Your task to perform on an android device: toggle priority inbox in the gmail app Image 0: 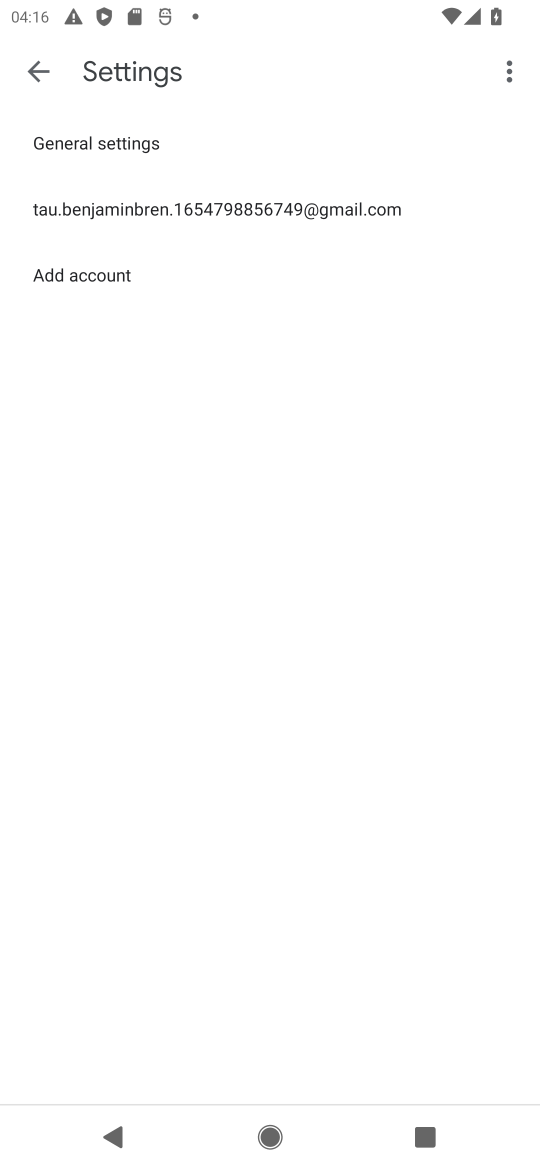
Step 0: press home button
Your task to perform on an android device: toggle priority inbox in the gmail app Image 1: 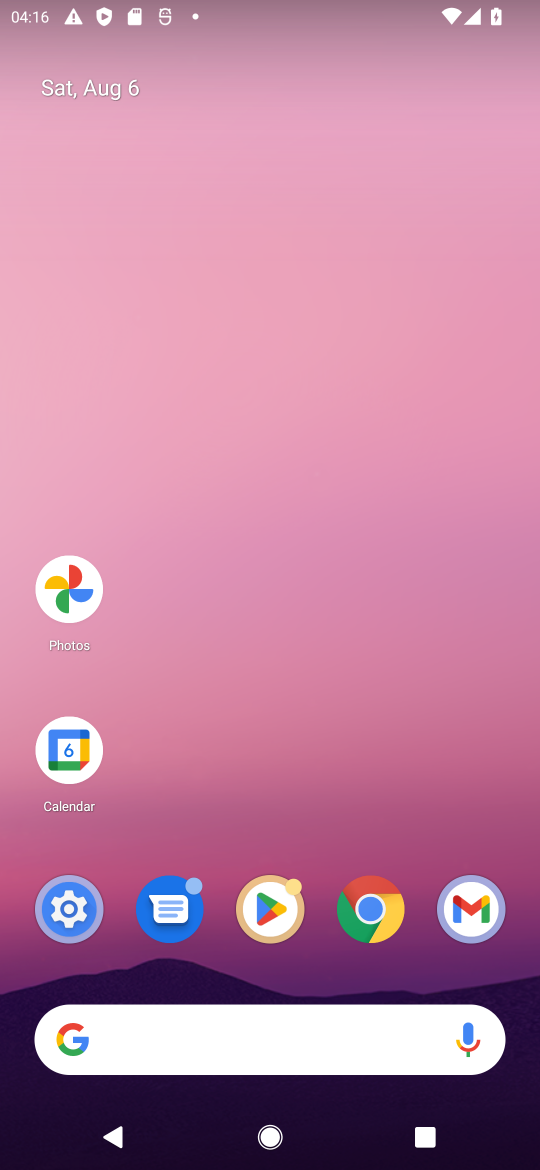
Step 1: click (461, 907)
Your task to perform on an android device: toggle priority inbox in the gmail app Image 2: 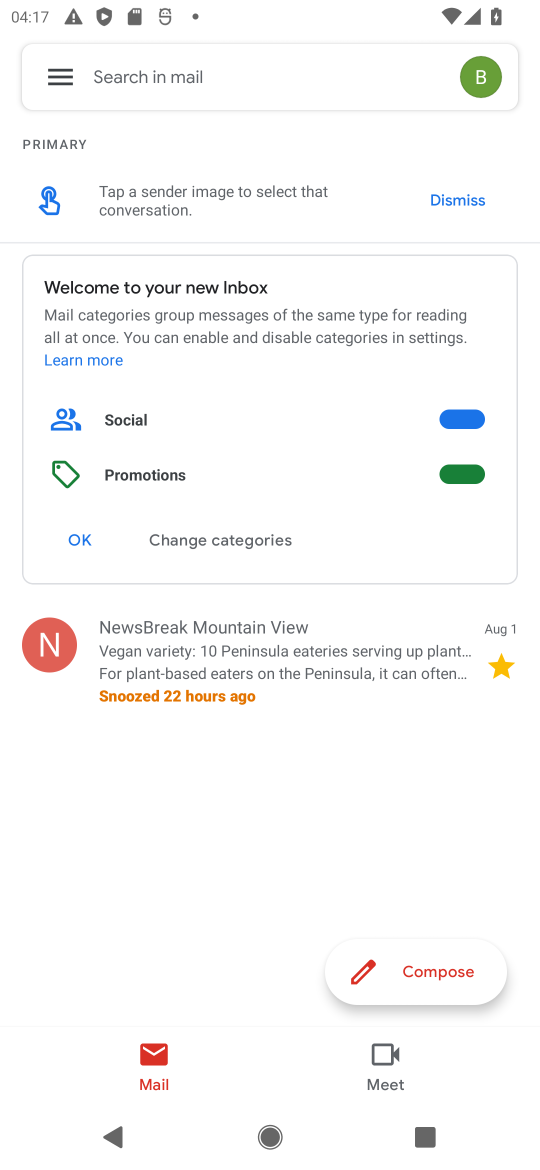
Step 2: click (53, 74)
Your task to perform on an android device: toggle priority inbox in the gmail app Image 3: 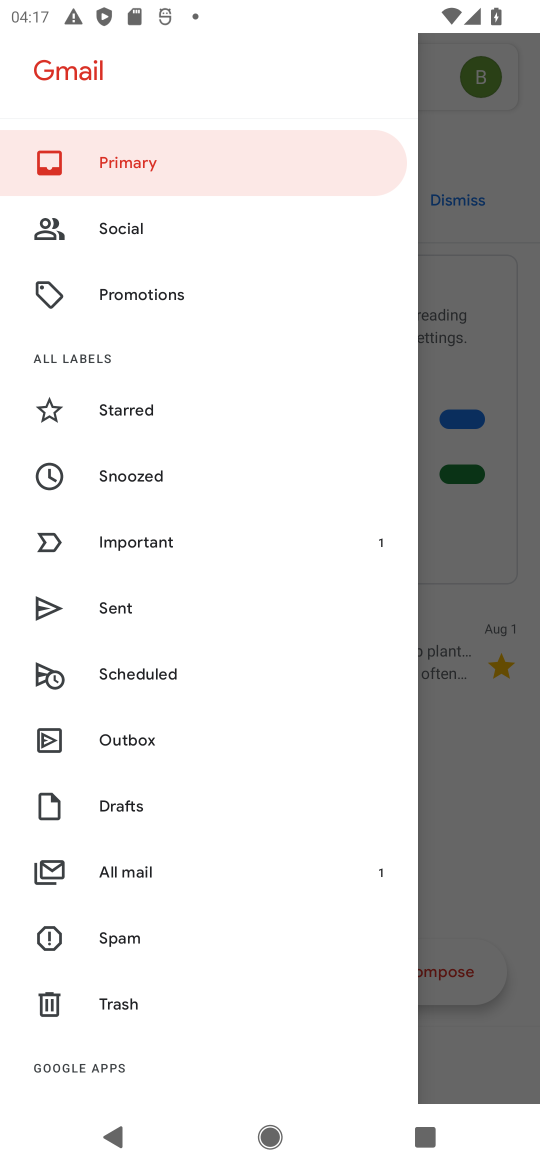
Step 3: drag from (236, 905) to (219, 370)
Your task to perform on an android device: toggle priority inbox in the gmail app Image 4: 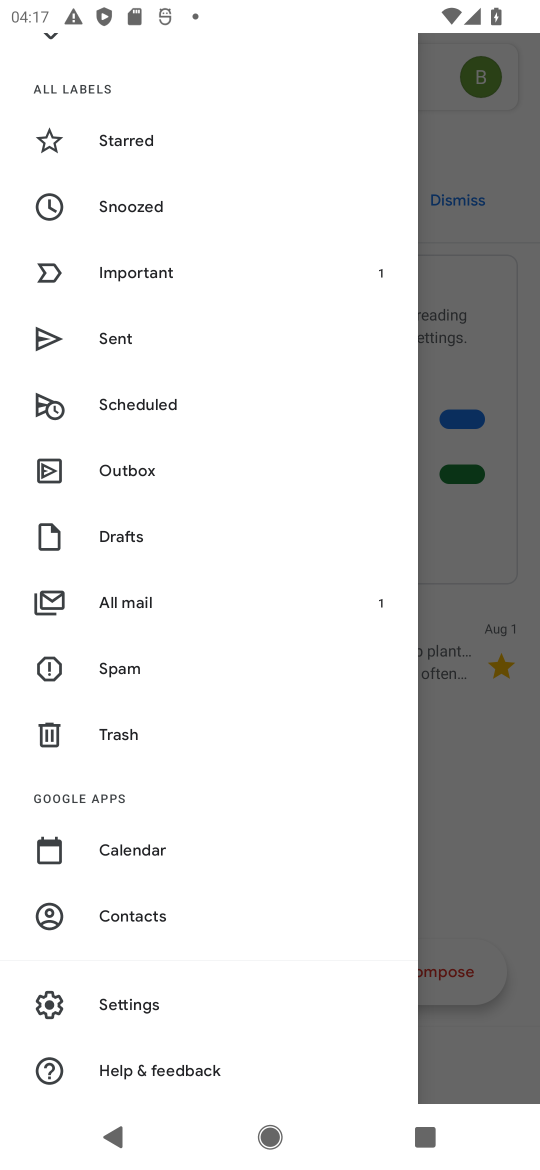
Step 4: click (112, 999)
Your task to perform on an android device: toggle priority inbox in the gmail app Image 5: 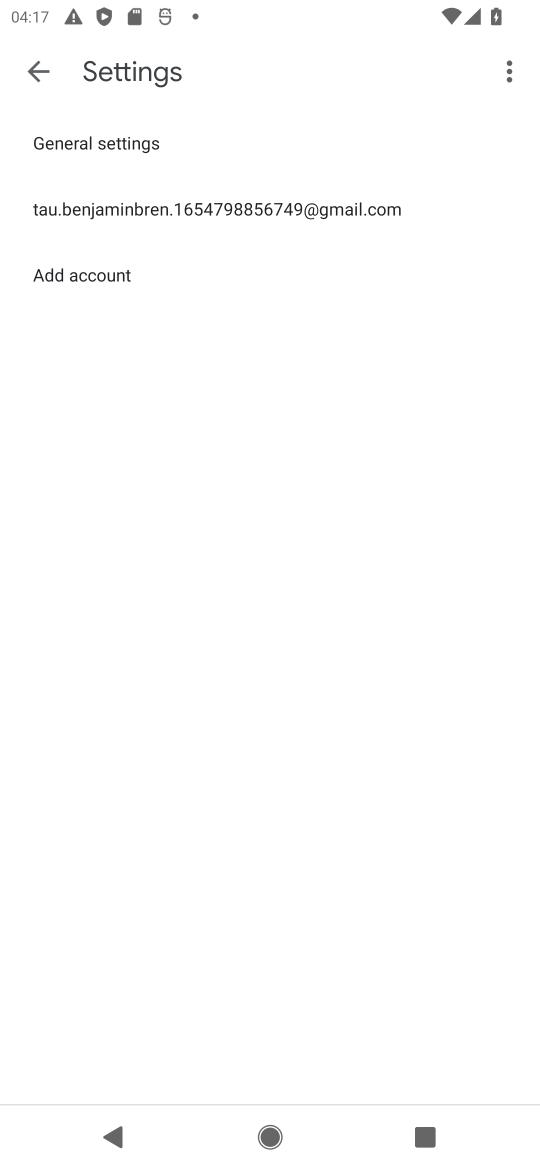
Step 5: click (135, 204)
Your task to perform on an android device: toggle priority inbox in the gmail app Image 6: 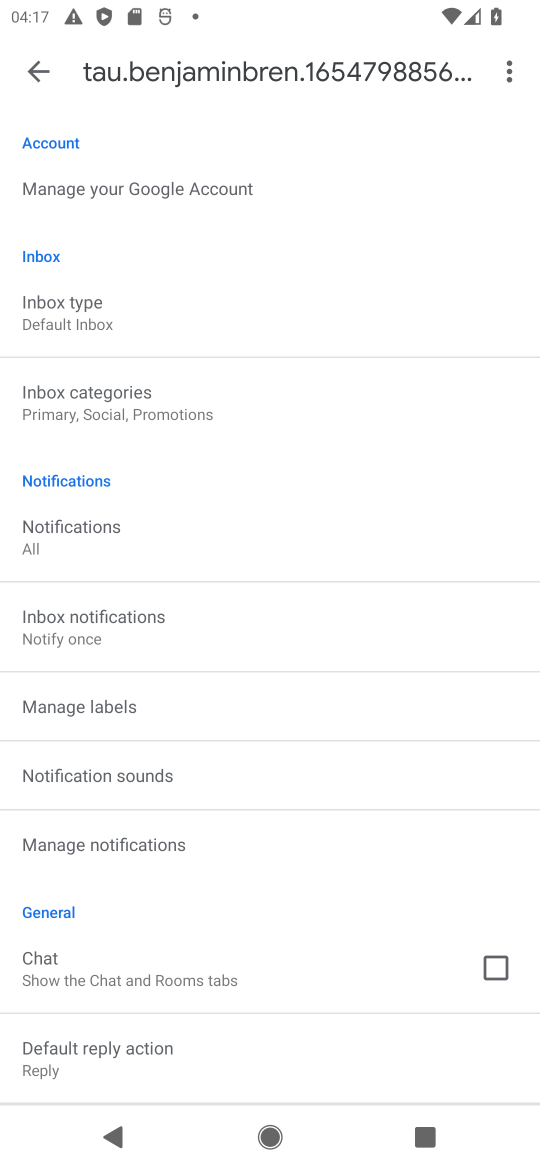
Step 6: click (64, 302)
Your task to perform on an android device: toggle priority inbox in the gmail app Image 7: 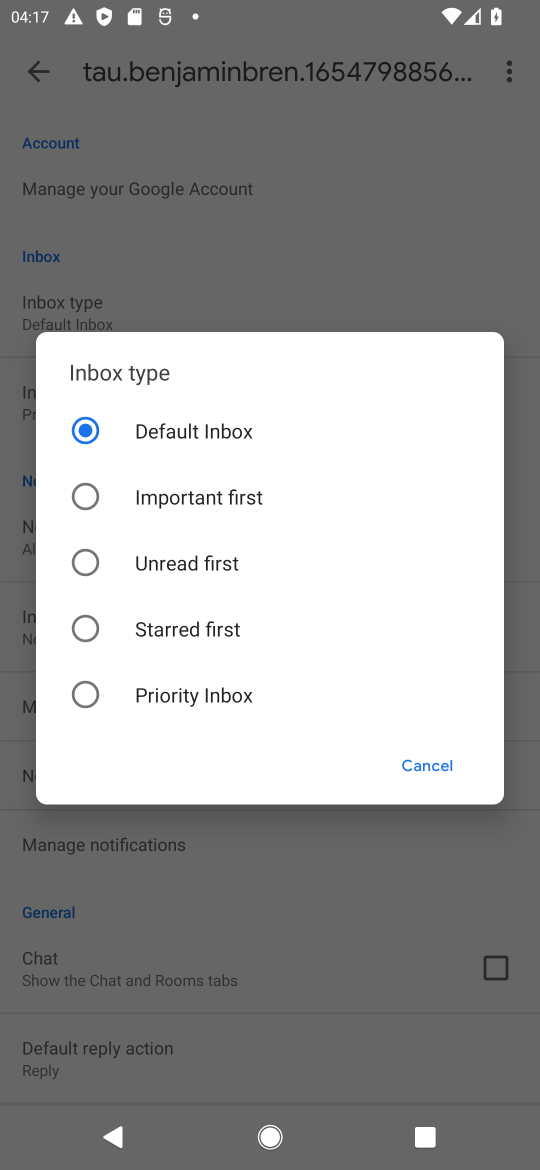
Step 7: click (76, 689)
Your task to perform on an android device: toggle priority inbox in the gmail app Image 8: 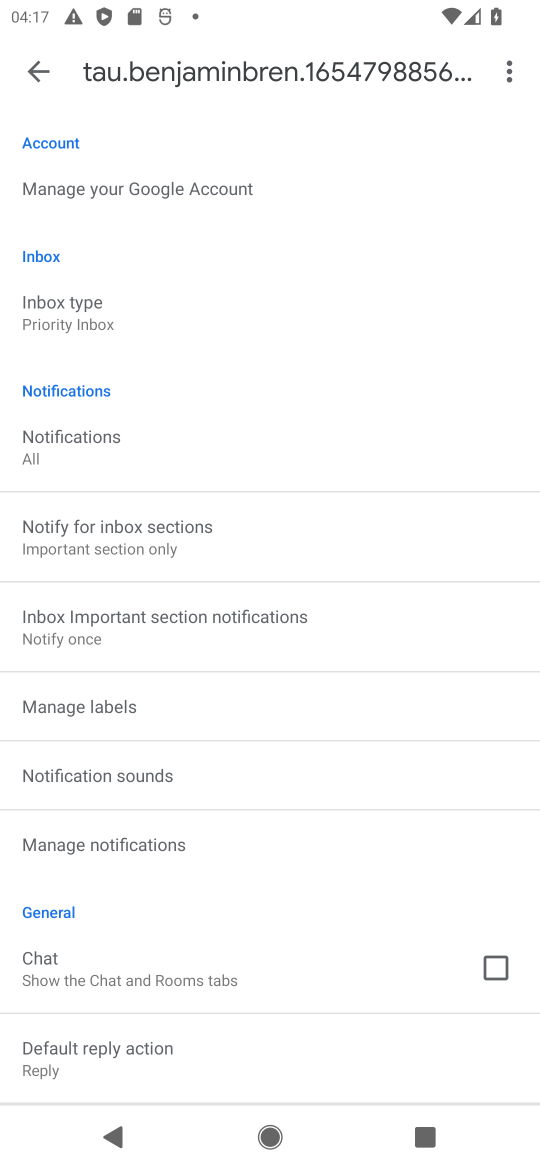
Step 8: task complete